Your task to perform on an android device: check the backup settings in the google photos Image 0: 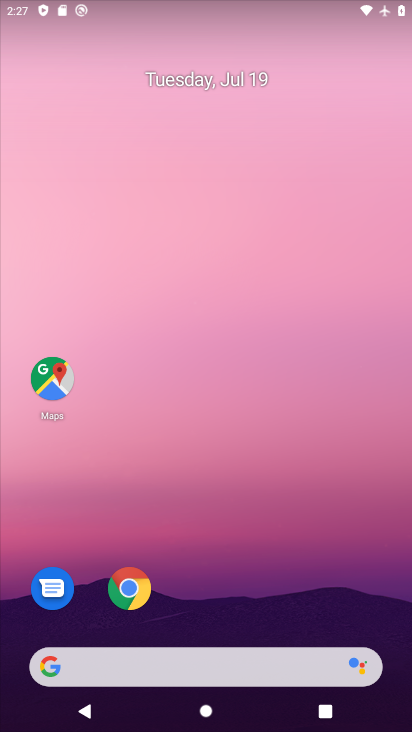
Step 0: press home button
Your task to perform on an android device: check the backup settings in the google photos Image 1: 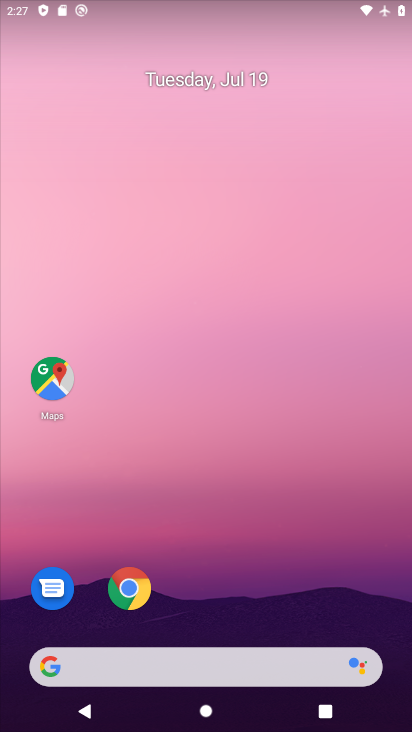
Step 1: drag from (230, 456) to (310, 25)
Your task to perform on an android device: check the backup settings in the google photos Image 2: 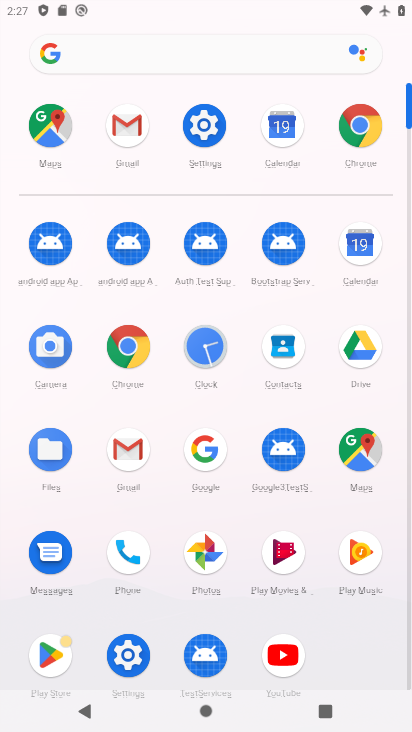
Step 2: click (201, 551)
Your task to perform on an android device: check the backup settings in the google photos Image 3: 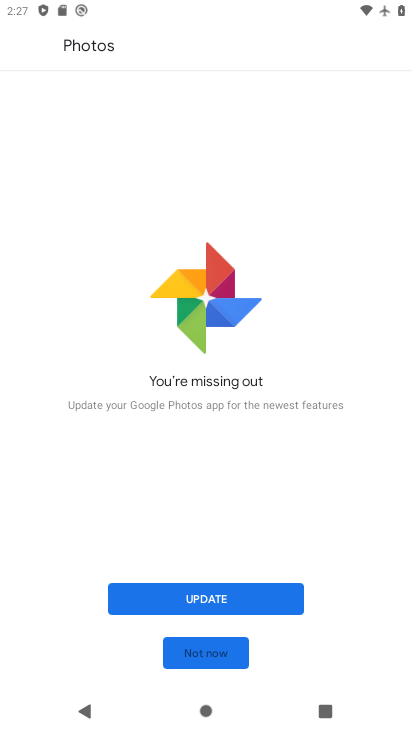
Step 3: click (207, 602)
Your task to perform on an android device: check the backup settings in the google photos Image 4: 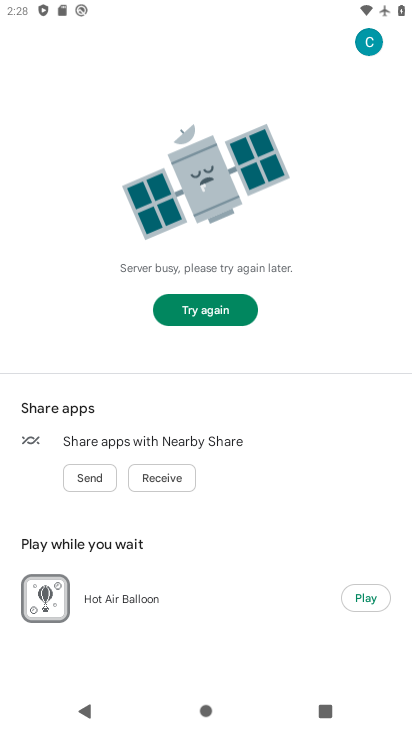
Step 4: click (206, 312)
Your task to perform on an android device: check the backup settings in the google photos Image 5: 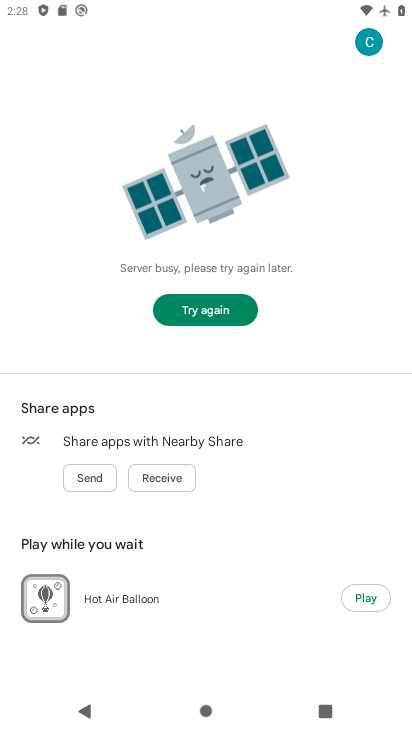
Step 5: task complete